Your task to perform on an android device: toggle wifi Image 0: 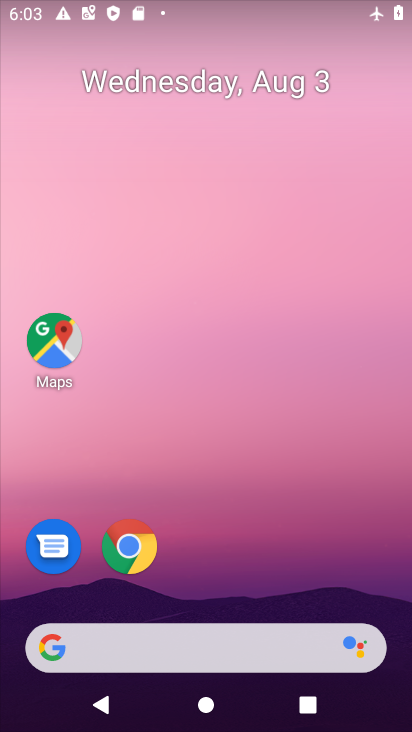
Step 0: press home button
Your task to perform on an android device: toggle wifi Image 1: 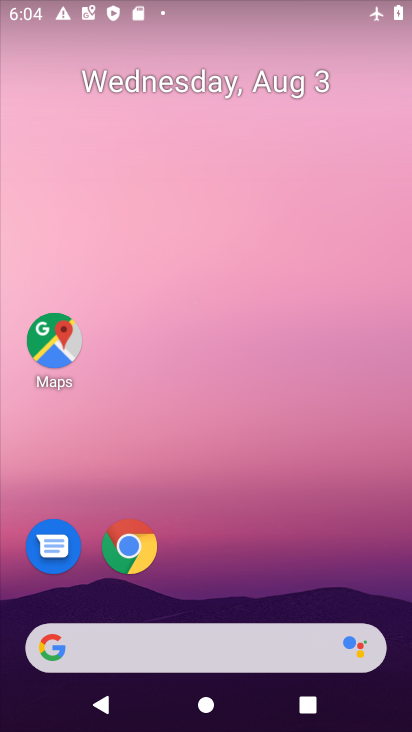
Step 1: drag from (221, 0) to (223, 423)
Your task to perform on an android device: toggle wifi Image 2: 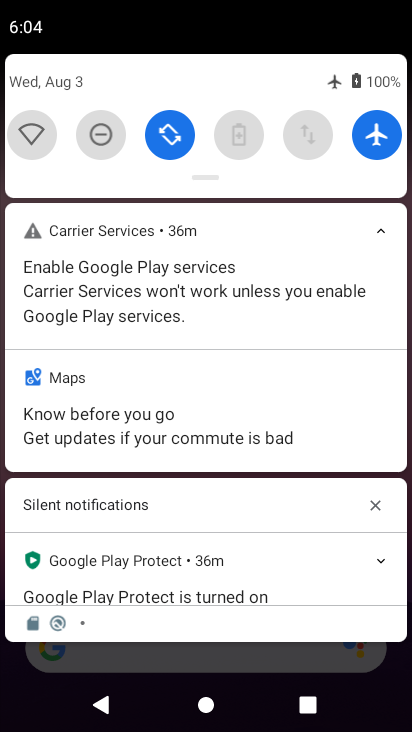
Step 2: click (18, 134)
Your task to perform on an android device: toggle wifi Image 3: 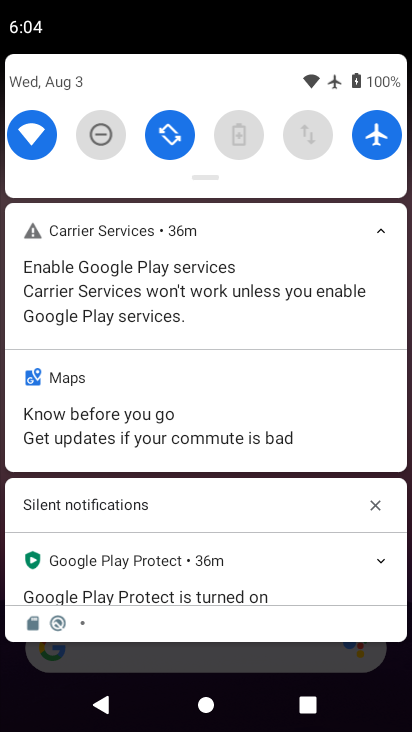
Step 3: task complete